Your task to perform on an android device: find snoozed emails in the gmail app Image 0: 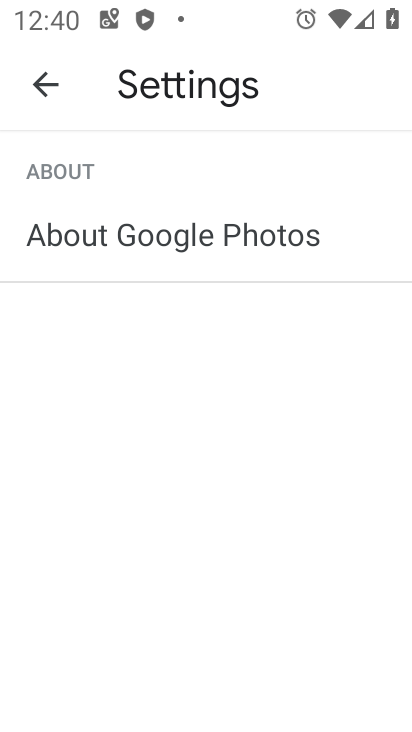
Step 0: press home button
Your task to perform on an android device: find snoozed emails in the gmail app Image 1: 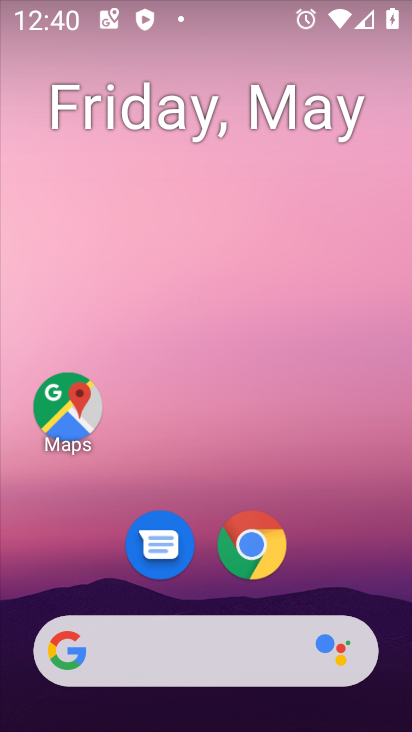
Step 1: drag from (180, 589) to (157, 198)
Your task to perform on an android device: find snoozed emails in the gmail app Image 2: 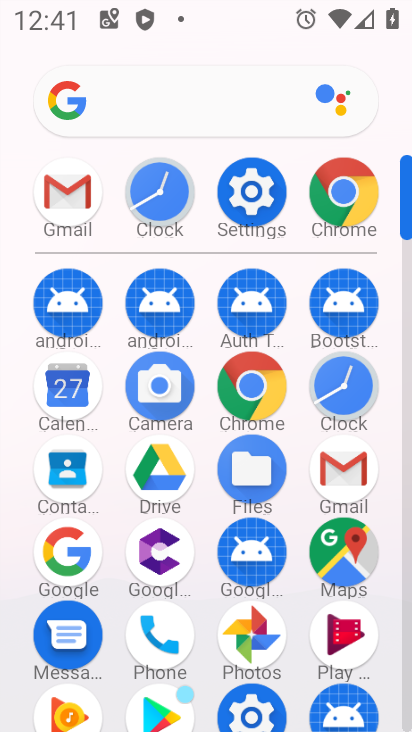
Step 2: click (344, 480)
Your task to perform on an android device: find snoozed emails in the gmail app Image 3: 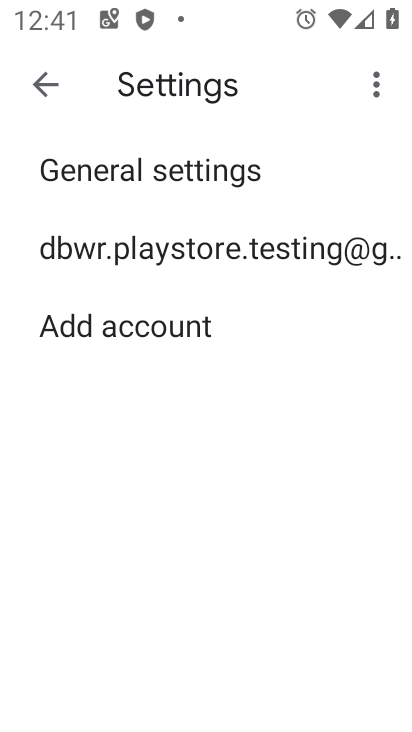
Step 3: click (51, 79)
Your task to perform on an android device: find snoozed emails in the gmail app Image 4: 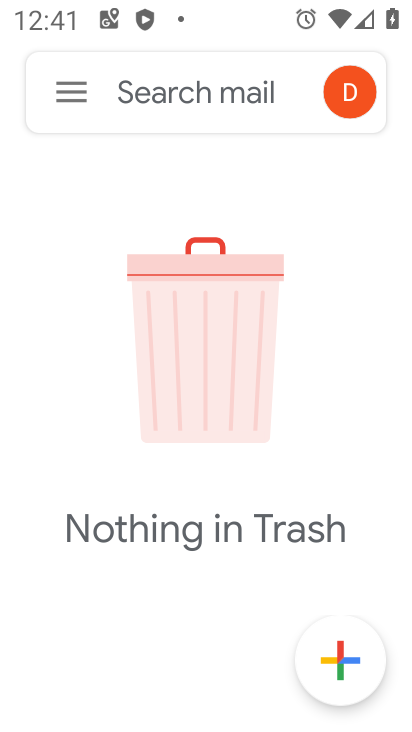
Step 4: click (52, 79)
Your task to perform on an android device: find snoozed emails in the gmail app Image 5: 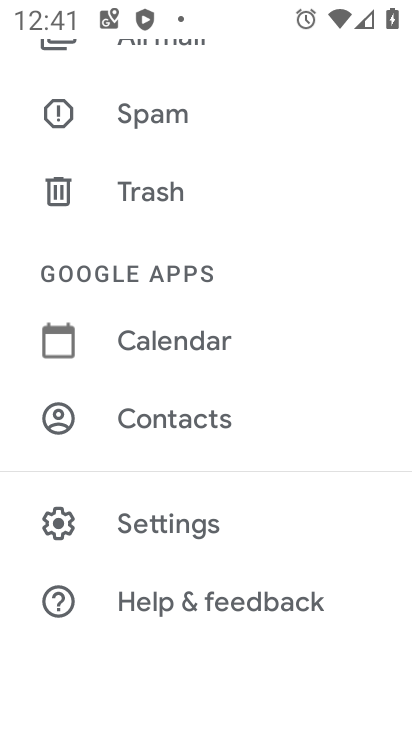
Step 5: drag from (215, 167) to (219, 350)
Your task to perform on an android device: find snoozed emails in the gmail app Image 6: 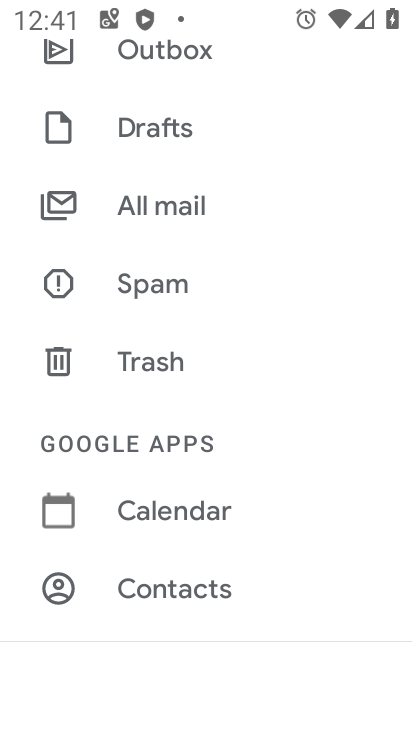
Step 6: drag from (206, 111) to (132, 549)
Your task to perform on an android device: find snoozed emails in the gmail app Image 7: 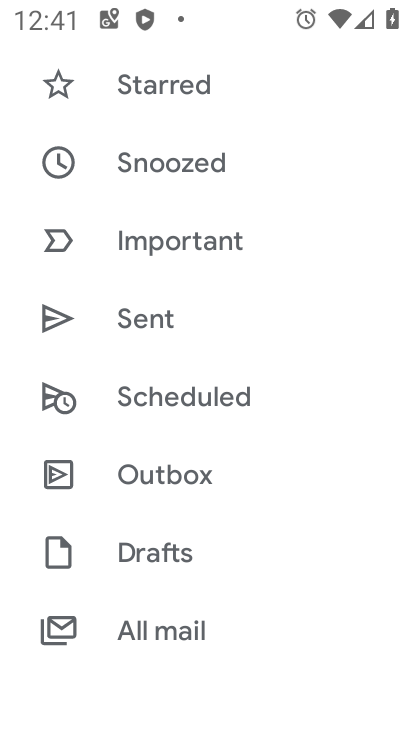
Step 7: click (170, 166)
Your task to perform on an android device: find snoozed emails in the gmail app Image 8: 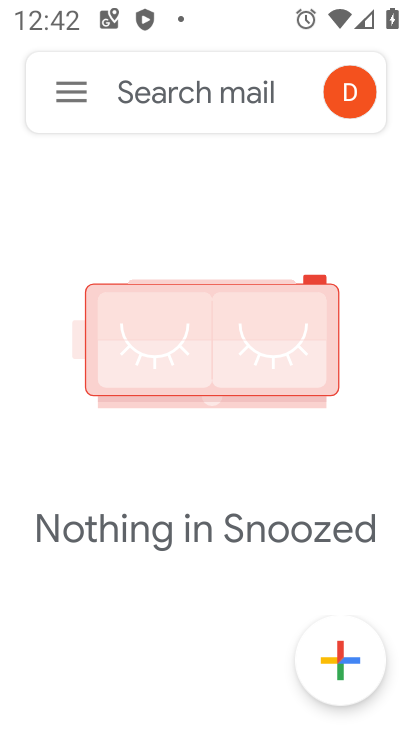
Step 8: click (64, 89)
Your task to perform on an android device: find snoozed emails in the gmail app Image 9: 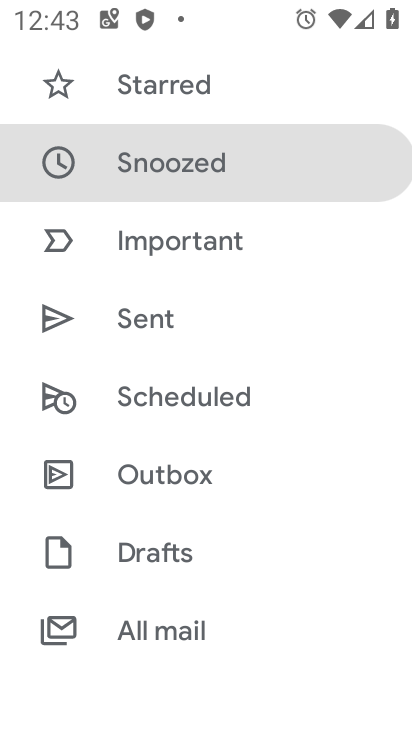
Step 9: task complete